Your task to perform on an android device: open app "Paramount+ | Peak Streaming" (install if not already installed) and enter user name: "fostered@yahoo.com" and password: "strong" Image 0: 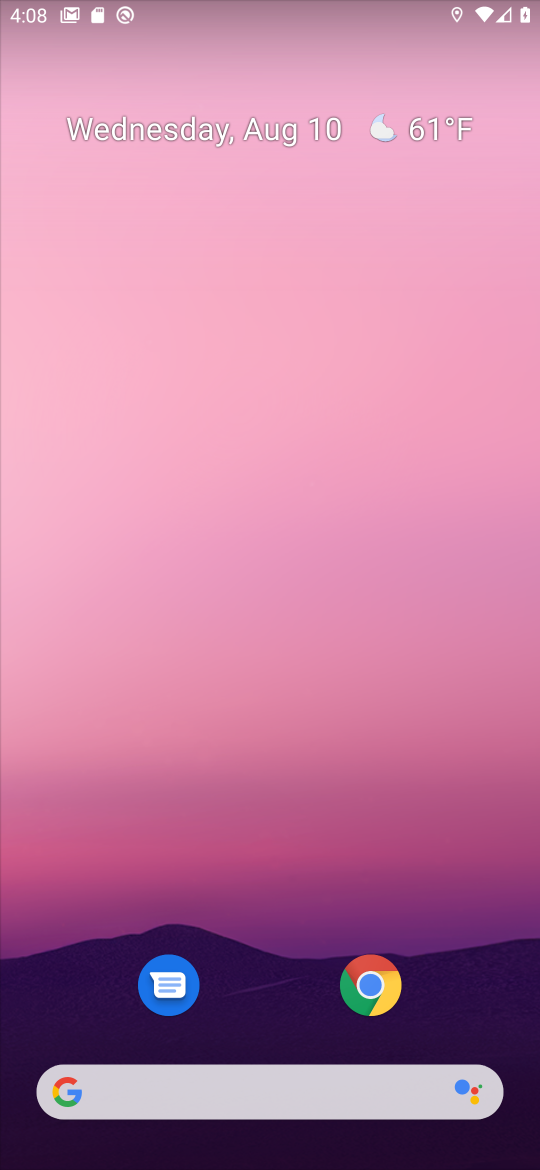
Step 0: press home button
Your task to perform on an android device: open app "Paramount+ | Peak Streaming" (install if not already installed) and enter user name: "fostered@yahoo.com" and password: "strong" Image 1: 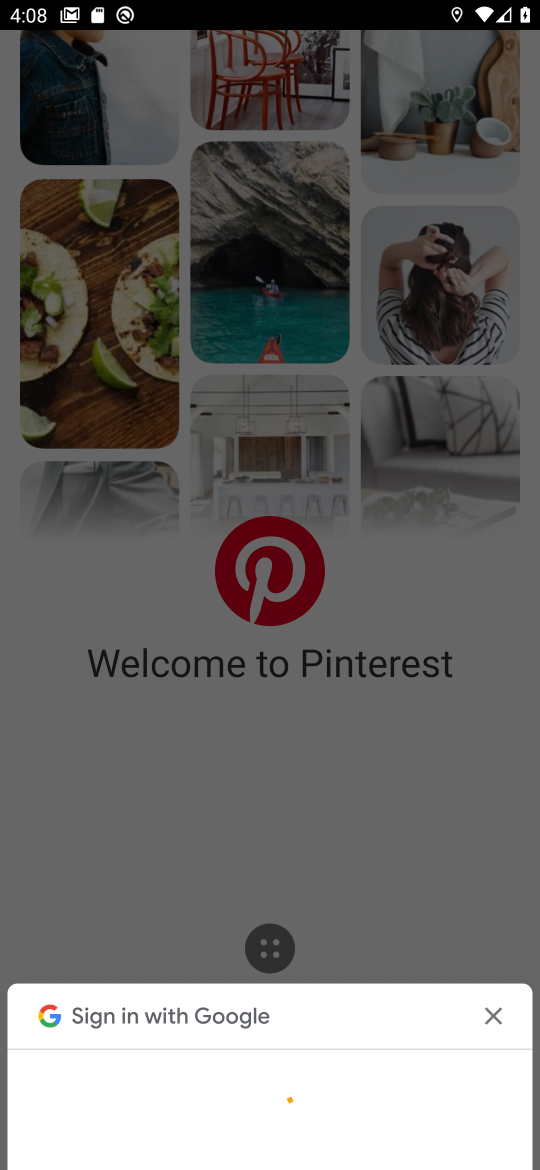
Step 1: click (284, 184)
Your task to perform on an android device: open app "Paramount+ | Peak Streaming" (install if not already installed) and enter user name: "fostered@yahoo.com" and password: "strong" Image 2: 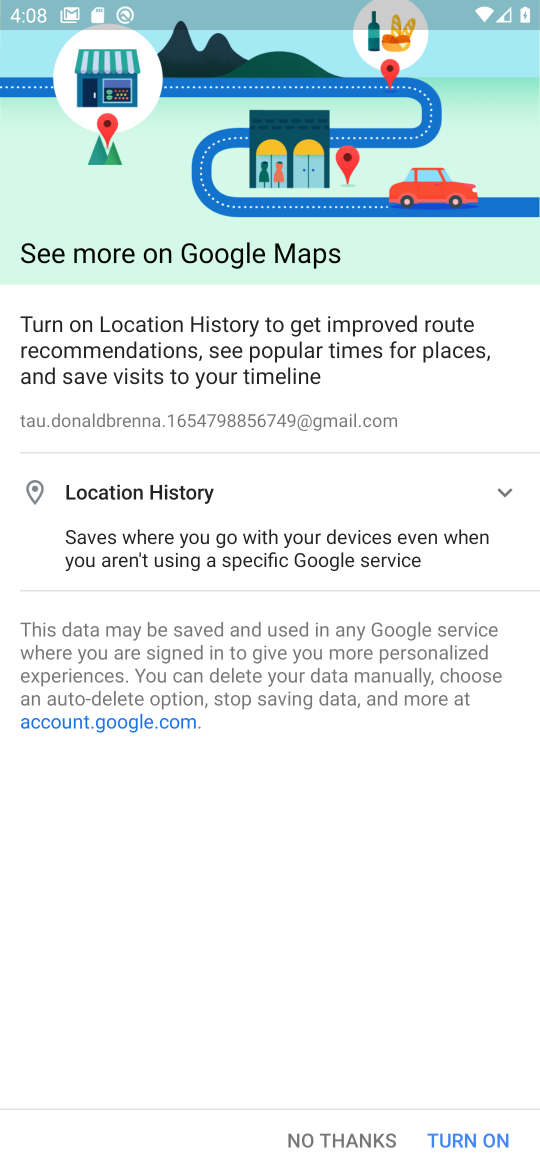
Step 2: press home button
Your task to perform on an android device: open app "Paramount+ | Peak Streaming" (install if not already installed) and enter user name: "fostered@yahoo.com" and password: "strong" Image 3: 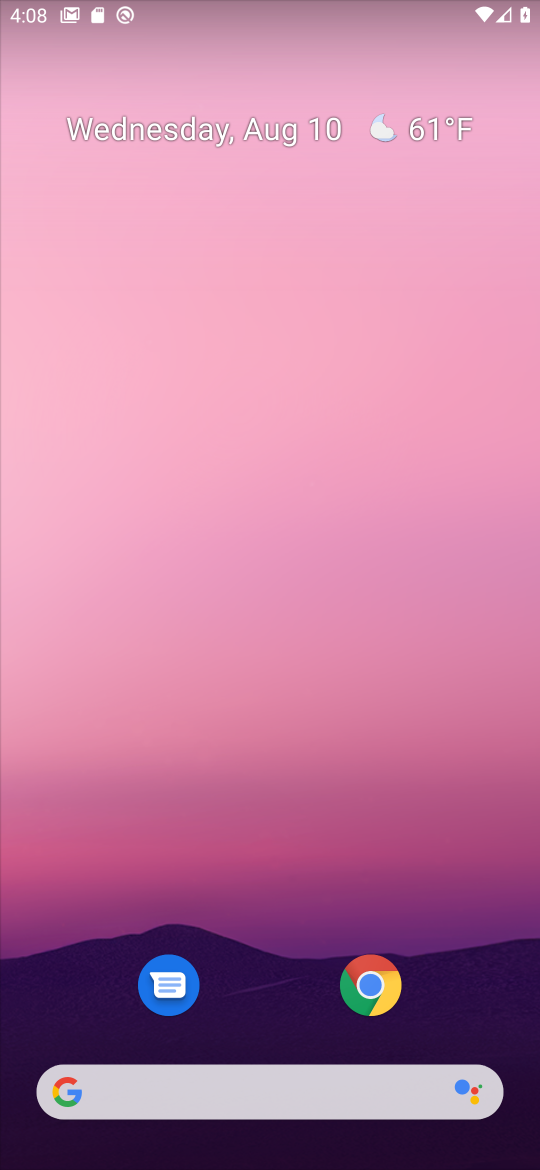
Step 3: drag from (242, 987) to (219, 266)
Your task to perform on an android device: open app "Paramount+ | Peak Streaming" (install if not already installed) and enter user name: "fostered@yahoo.com" and password: "strong" Image 4: 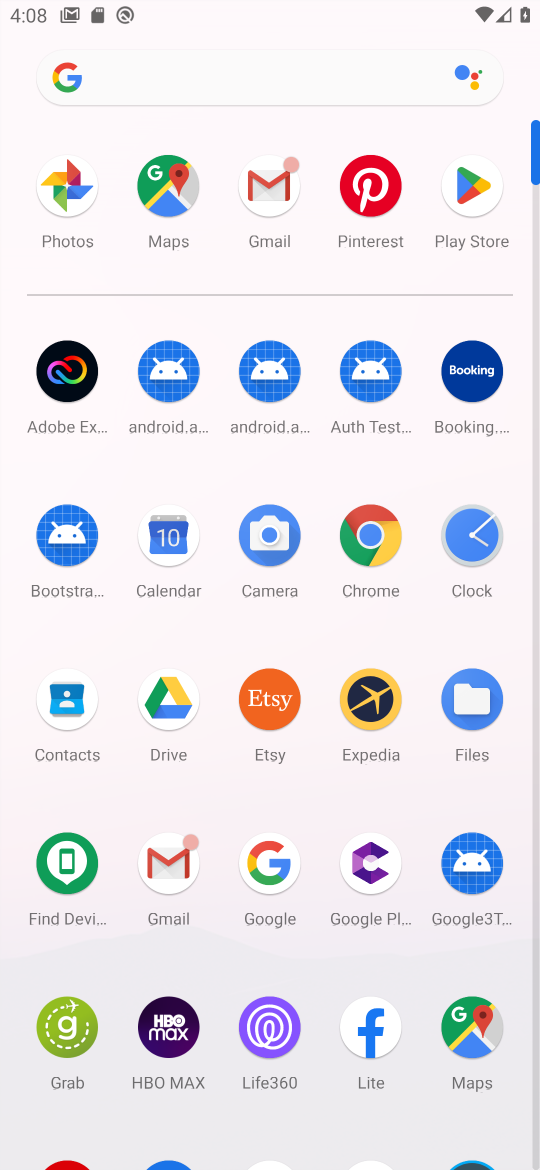
Step 4: click (482, 191)
Your task to perform on an android device: open app "Paramount+ | Peak Streaming" (install if not already installed) and enter user name: "fostered@yahoo.com" and password: "strong" Image 5: 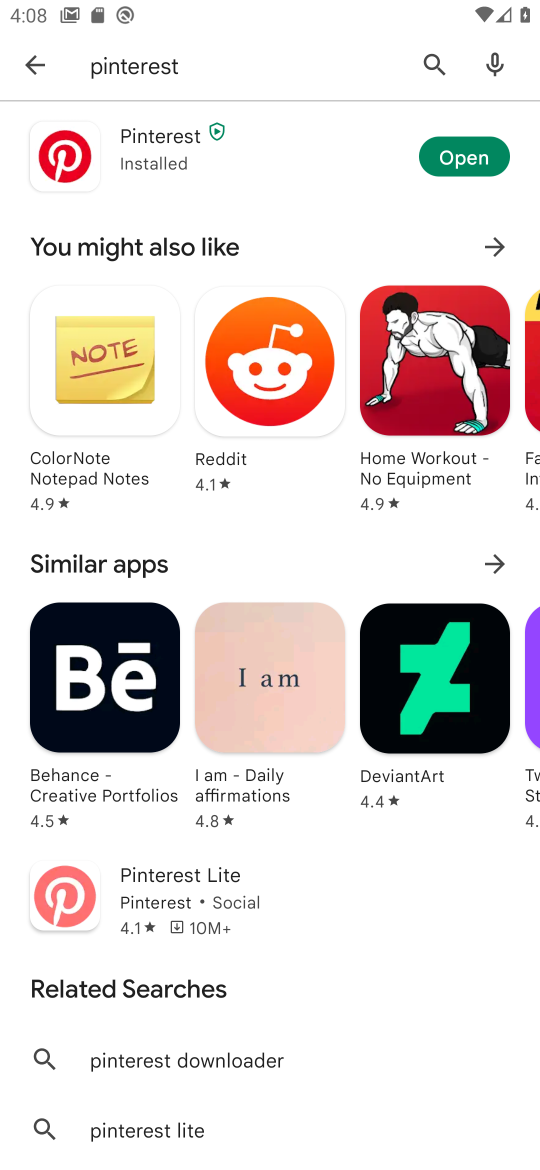
Step 5: click (30, 61)
Your task to perform on an android device: open app "Paramount+ | Peak Streaming" (install if not already installed) and enter user name: "fostered@yahoo.com" and password: "strong" Image 6: 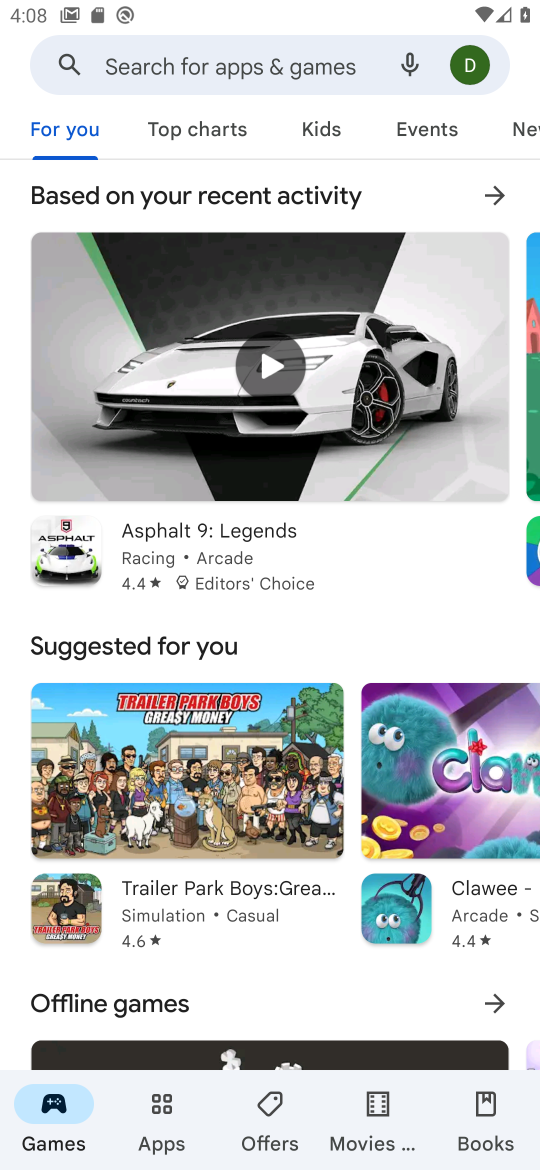
Step 6: click (223, 59)
Your task to perform on an android device: open app "Paramount+ | Peak Streaming" (install if not already installed) and enter user name: "fostered@yahoo.com" and password: "strong" Image 7: 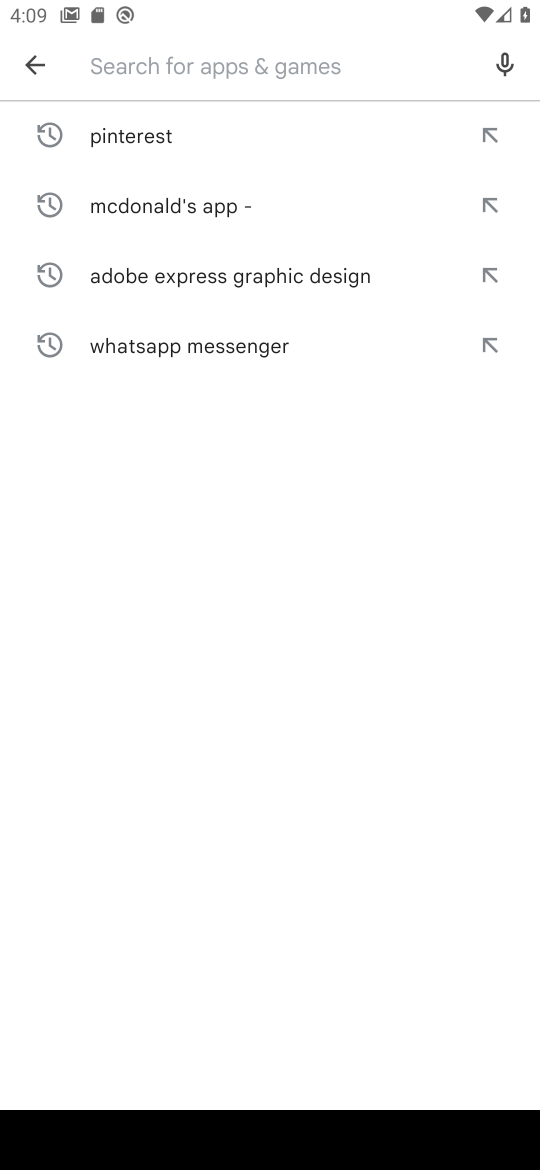
Step 7: type "Paramount+ | Peak Streaming"
Your task to perform on an android device: open app "Paramount+ | Peak Streaming" (install if not already installed) and enter user name: "fostered@yahoo.com" and password: "strong" Image 8: 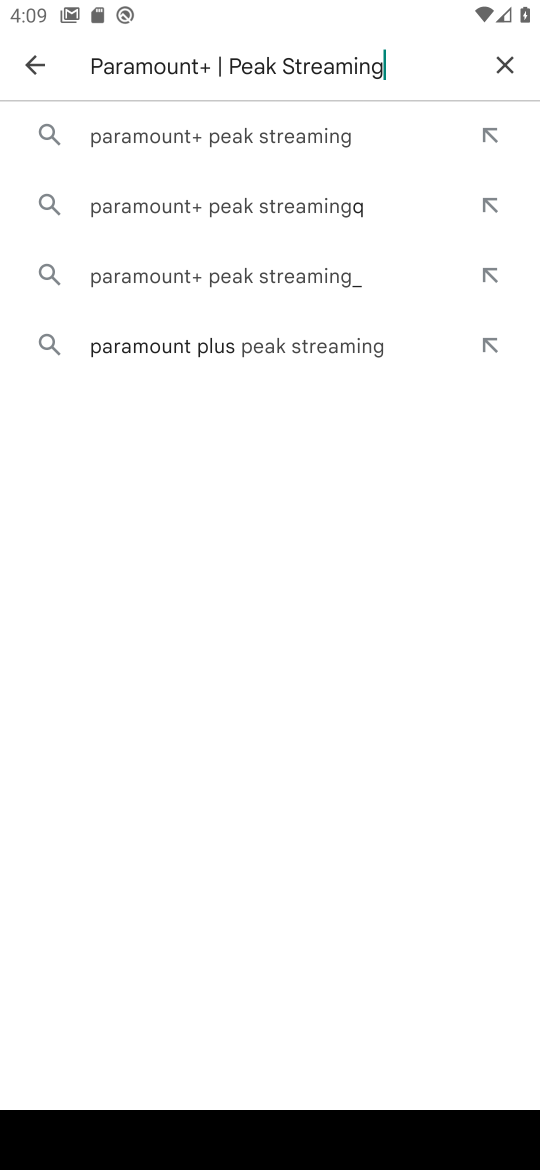
Step 8: click (174, 131)
Your task to perform on an android device: open app "Paramount+ | Peak Streaming" (install if not already installed) and enter user name: "fostered@yahoo.com" and password: "strong" Image 9: 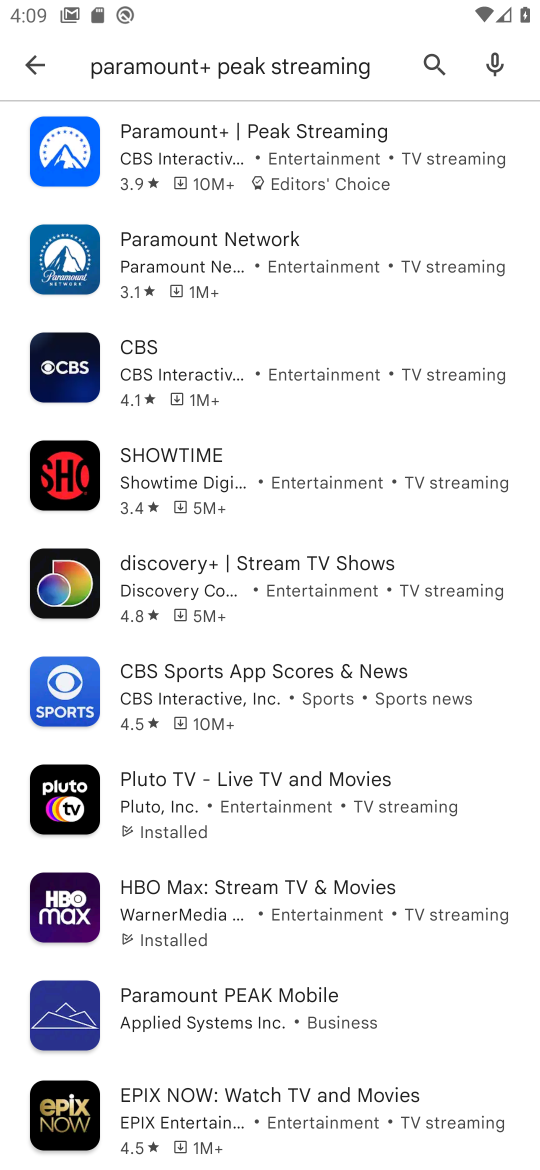
Step 9: click (250, 174)
Your task to perform on an android device: open app "Paramount+ | Peak Streaming" (install if not already installed) and enter user name: "fostered@yahoo.com" and password: "strong" Image 10: 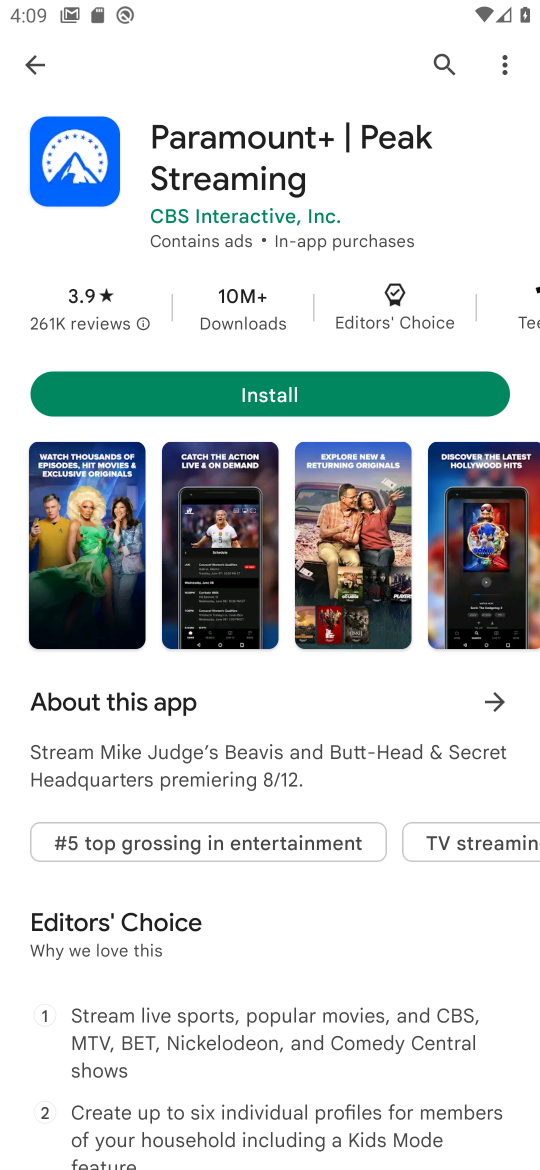
Step 10: click (250, 393)
Your task to perform on an android device: open app "Paramount+ | Peak Streaming" (install if not already installed) and enter user name: "fostered@yahoo.com" and password: "strong" Image 11: 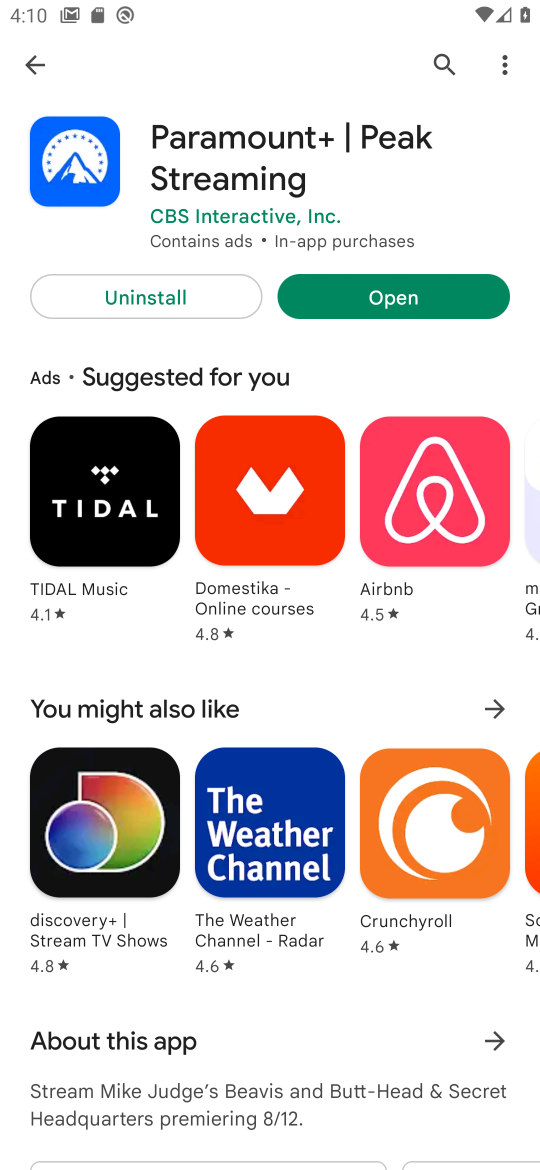
Step 11: click (383, 286)
Your task to perform on an android device: open app "Paramount+ | Peak Streaming" (install if not already installed) and enter user name: "fostered@yahoo.com" and password: "strong" Image 12: 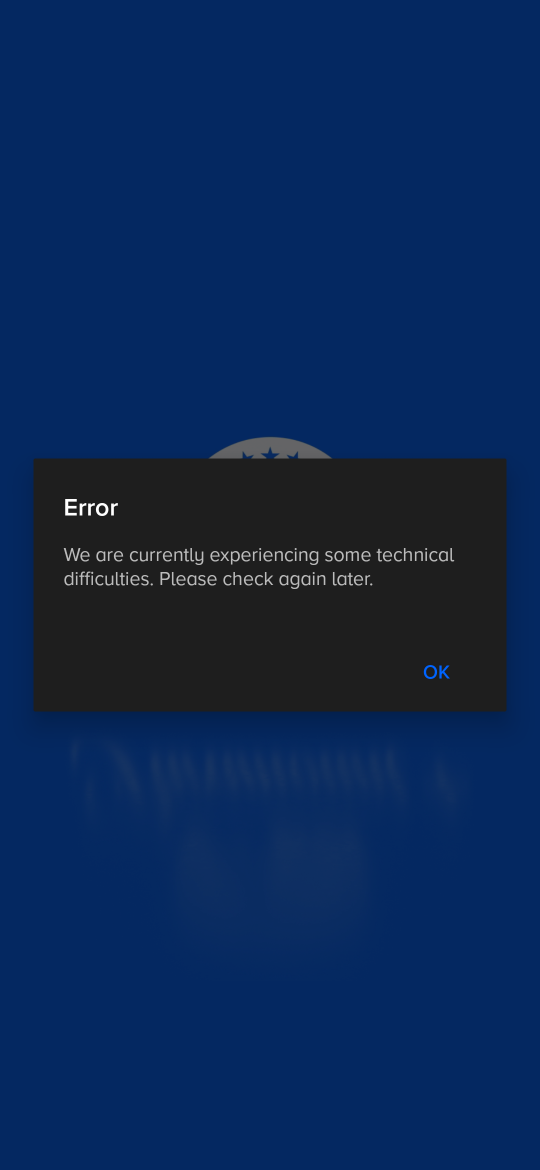
Step 12: click (446, 669)
Your task to perform on an android device: open app "Paramount+ | Peak Streaming" (install if not already installed) and enter user name: "fostered@yahoo.com" and password: "strong" Image 13: 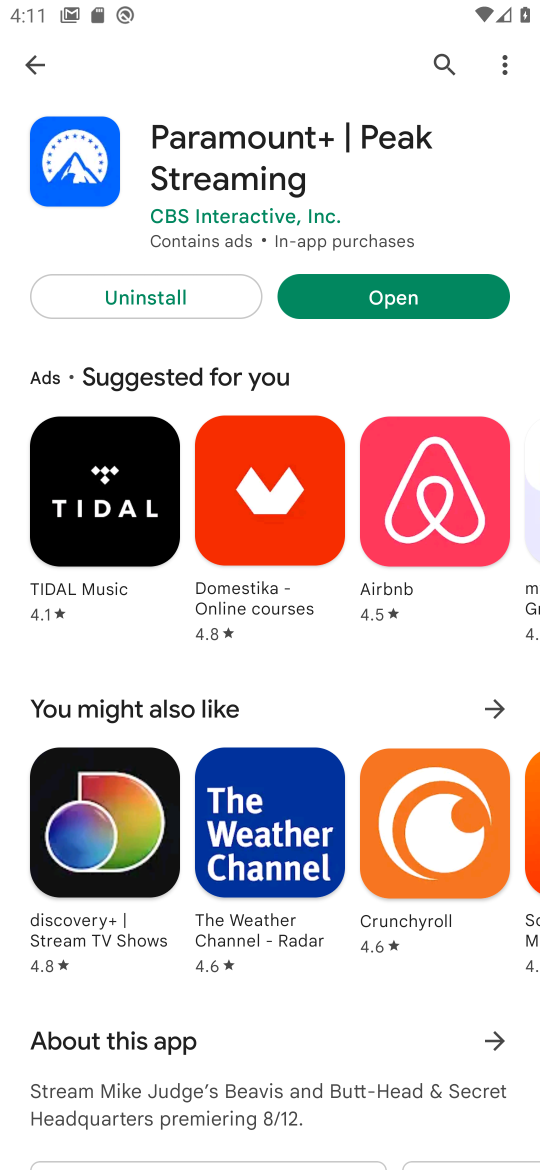
Step 13: click (305, 304)
Your task to perform on an android device: open app "Paramount+ | Peak Streaming" (install if not already installed) and enter user name: "fostered@yahoo.com" and password: "strong" Image 14: 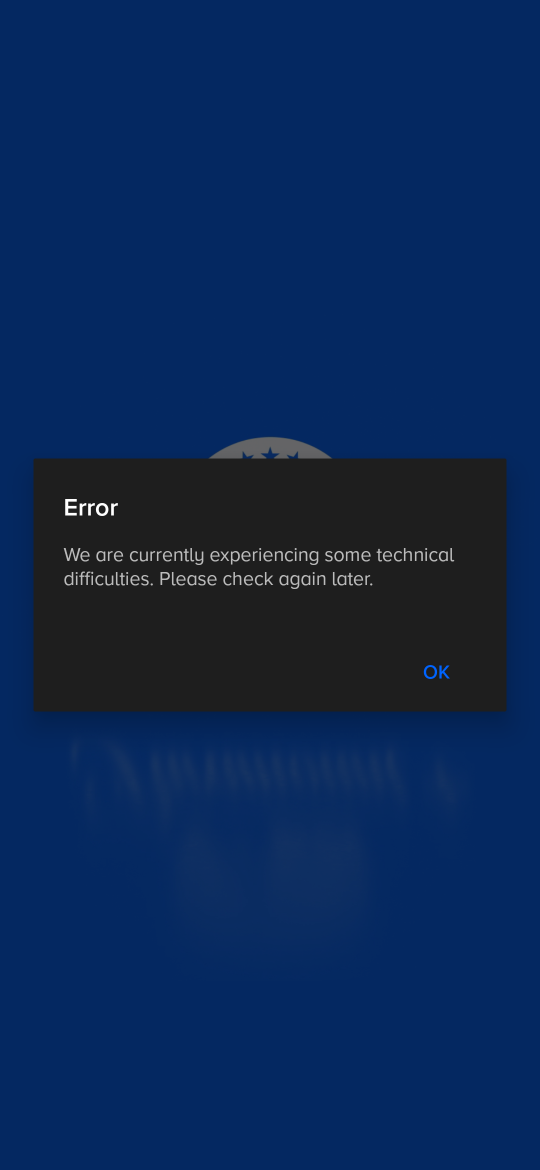
Step 14: click (436, 658)
Your task to perform on an android device: open app "Paramount+ | Peak Streaming" (install if not already installed) and enter user name: "fostered@yahoo.com" and password: "strong" Image 15: 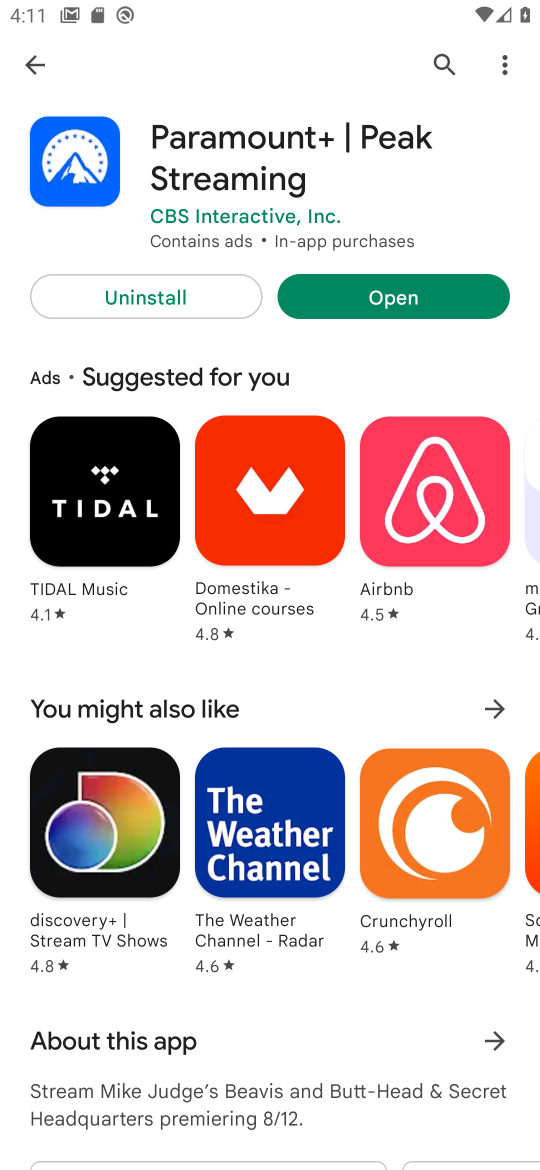
Step 15: task complete